Your task to perform on an android device: Turn on the flashlight Image 0: 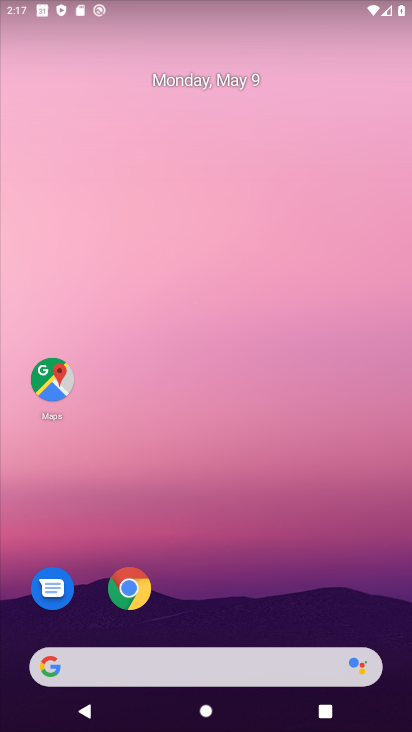
Step 0: drag from (321, 599) to (327, 230)
Your task to perform on an android device: Turn on the flashlight Image 1: 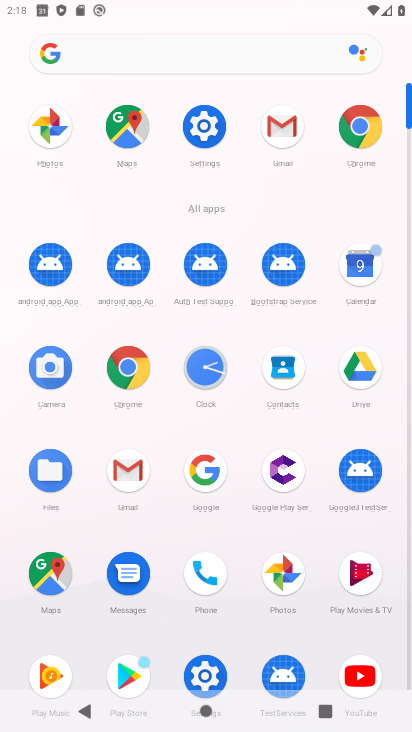
Step 1: click (197, 672)
Your task to perform on an android device: Turn on the flashlight Image 2: 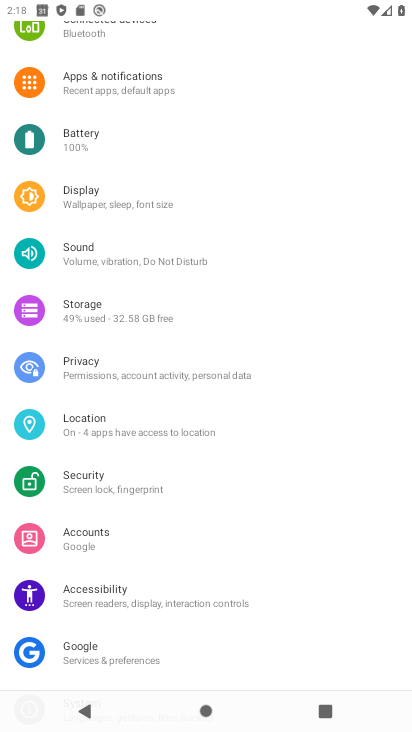
Step 2: task complete